Your task to perform on an android device: open app "Mercado Libre" (install if not already installed) Image 0: 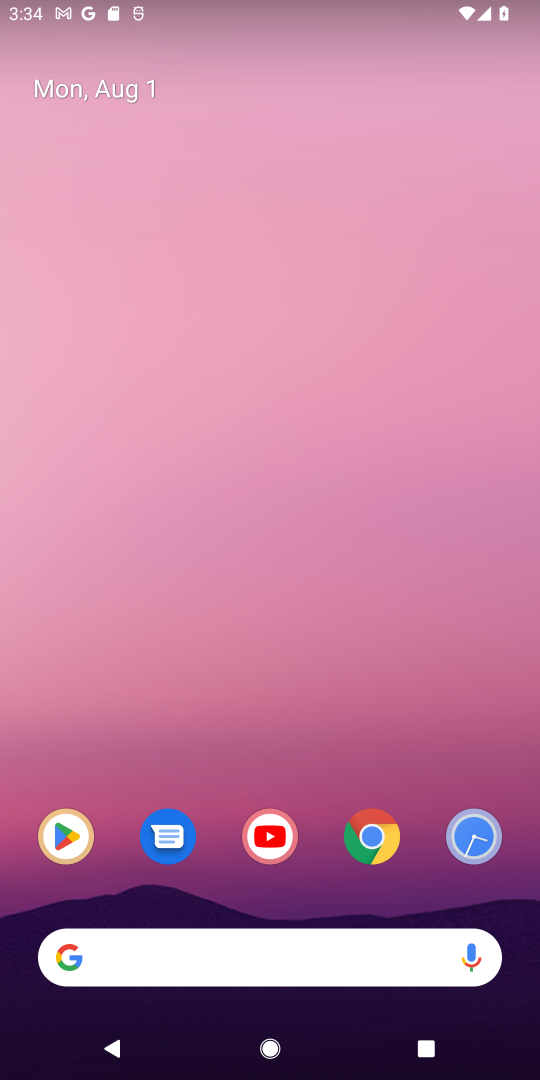
Step 0: drag from (152, 852) to (152, 420)
Your task to perform on an android device: open app "Mercado Libre" (install if not already installed) Image 1: 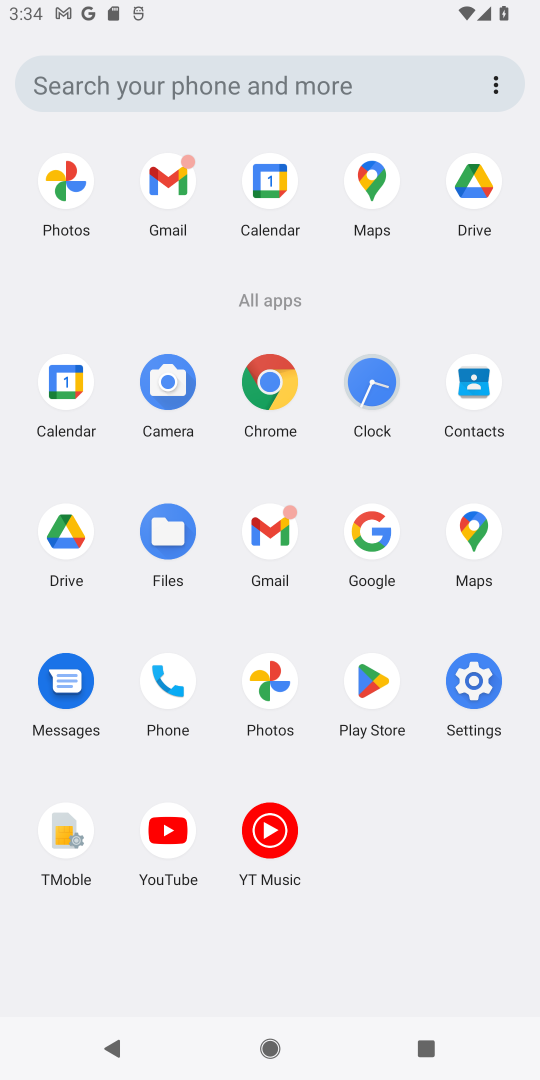
Step 1: click (361, 699)
Your task to perform on an android device: open app "Mercado Libre" (install if not already installed) Image 2: 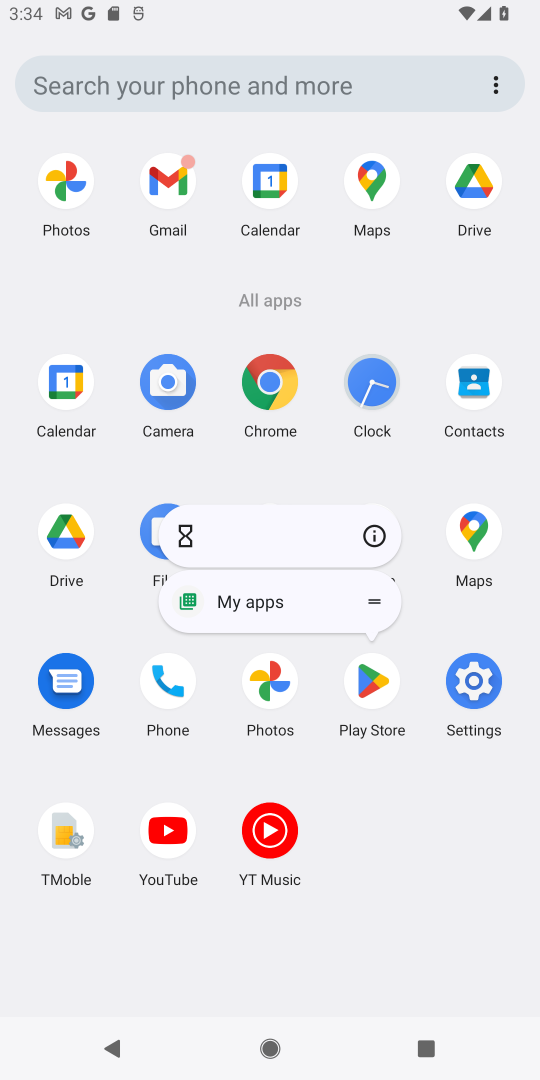
Step 2: click (376, 673)
Your task to perform on an android device: open app "Mercado Libre" (install if not already installed) Image 3: 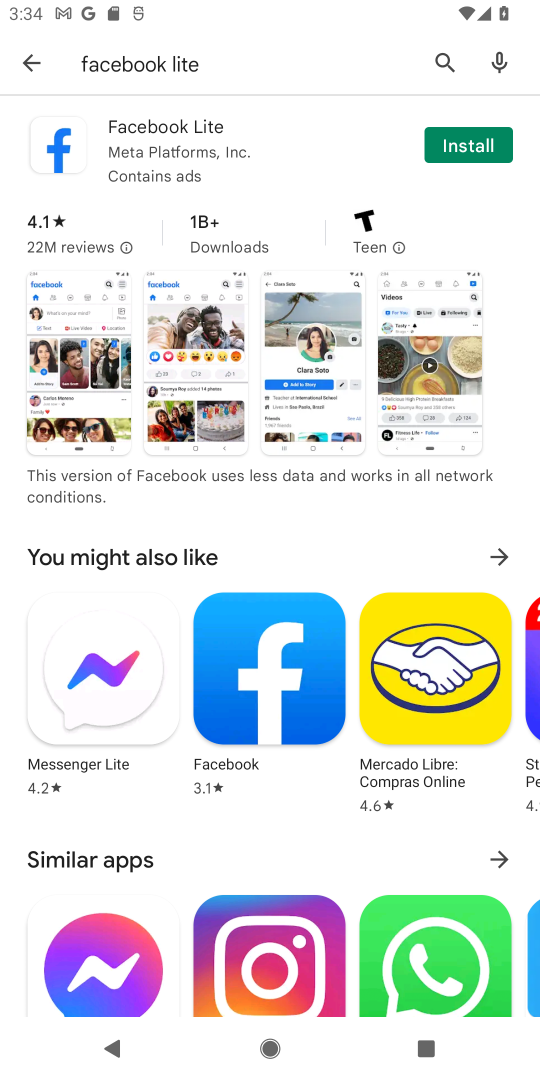
Step 3: click (28, 66)
Your task to perform on an android device: open app "Mercado Libre" (install if not already installed) Image 4: 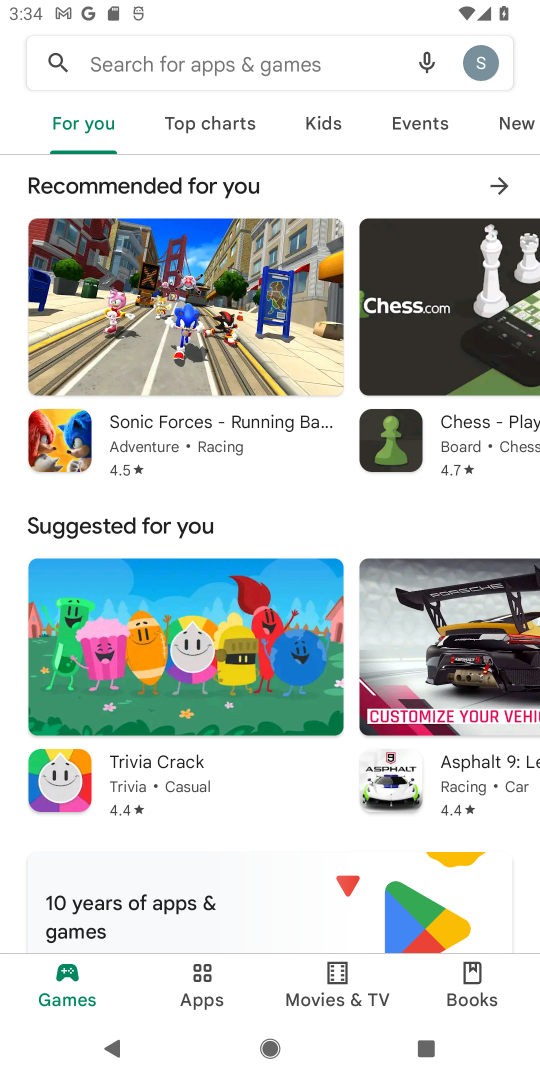
Step 4: click (243, 56)
Your task to perform on an android device: open app "Mercado Libre" (install if not already installed) Image 5: 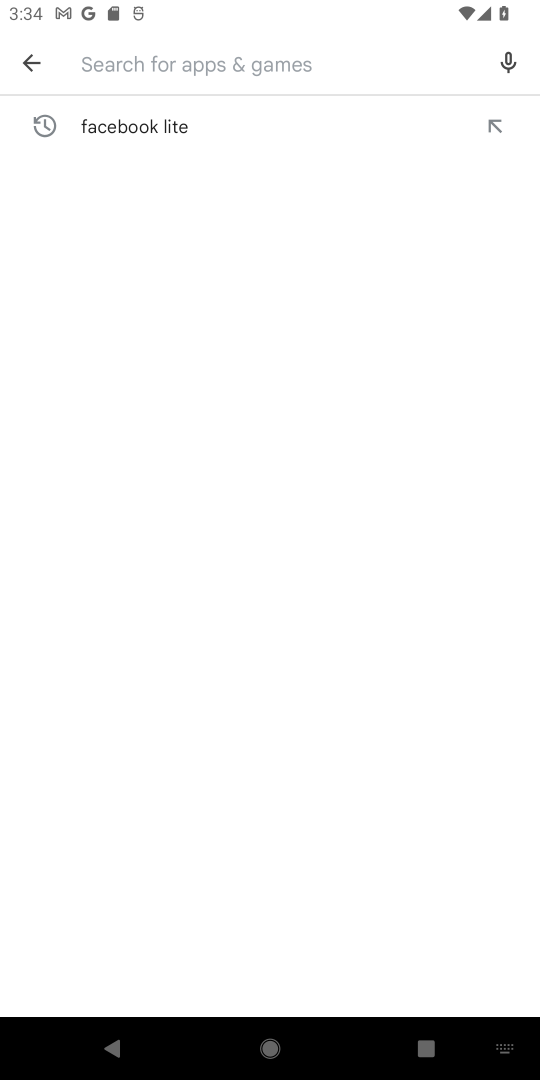
Step 5: type "Mercado Libre"
Your task to perform on an android device: open app "Mercado Libre" (install if not already installed) Image 6: 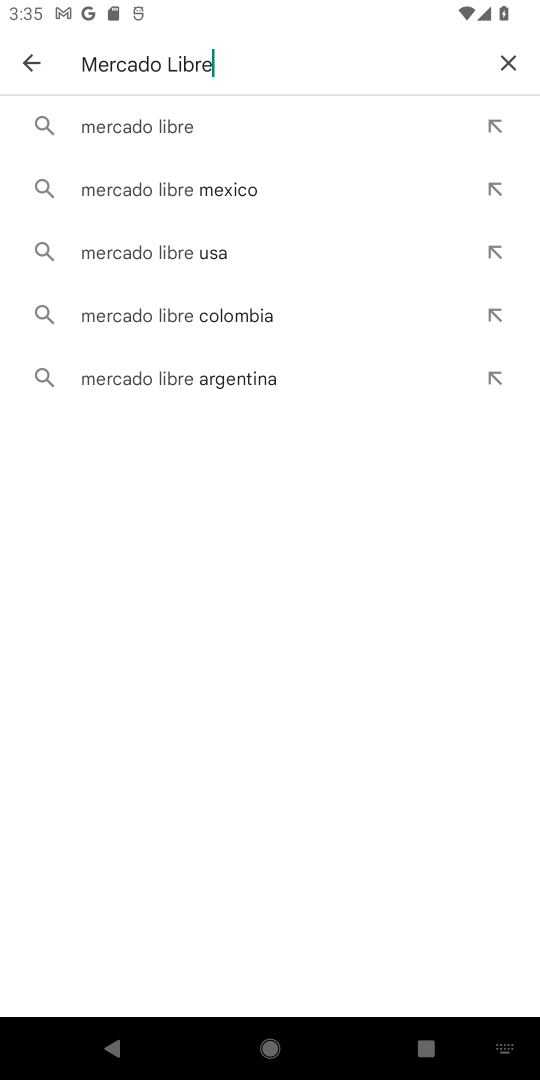
Step 6: click (163, 134)
Your task to perform on an android device: open app "Mercado Libre" (install if not already installed) Image 7: 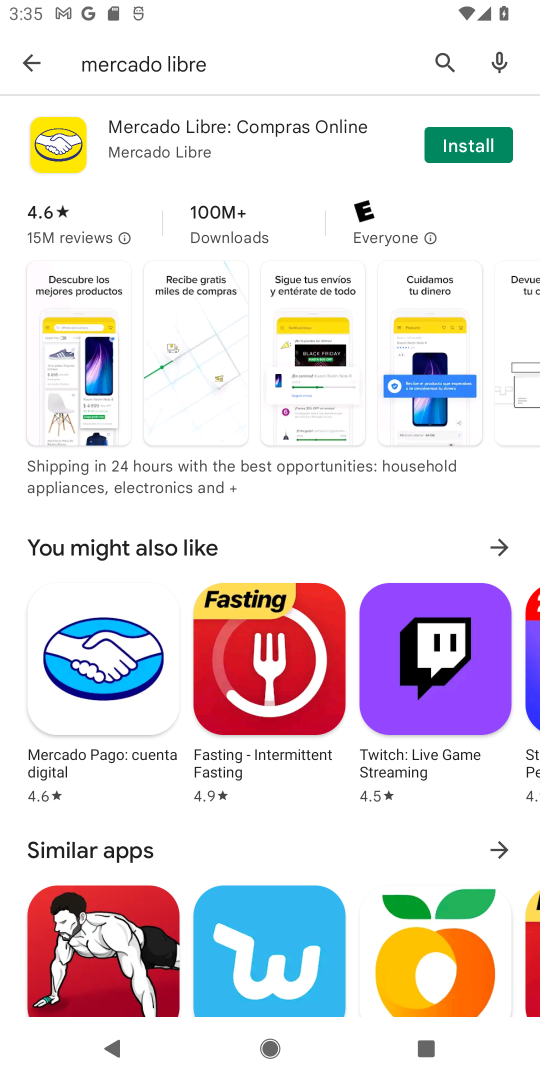
Step 7: click (448, 141)
Your task to perform on an android device: open app "Mercado Libre" (install if not already installed) Image 8: 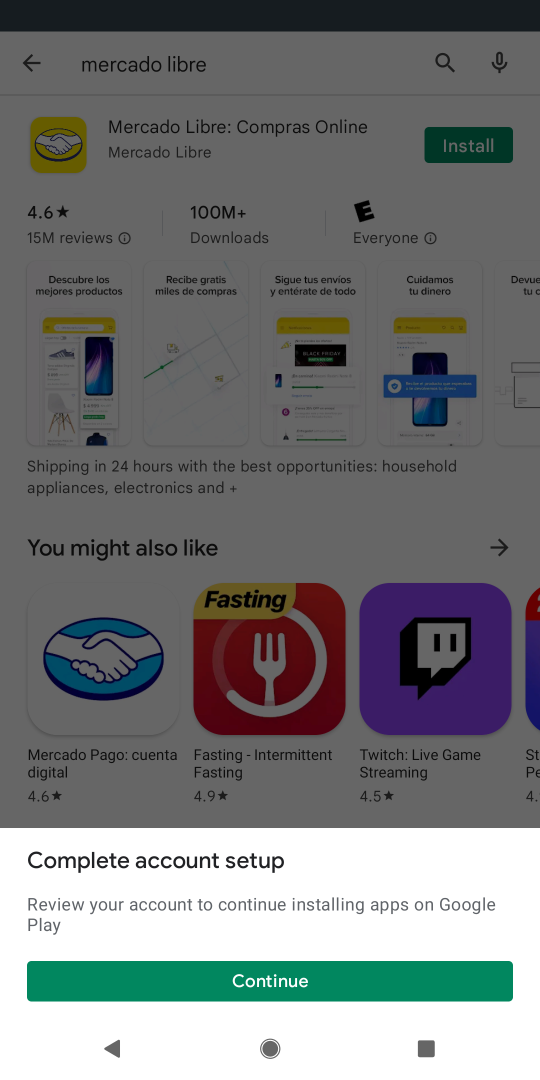
Step 8: click (248, 995)
Your task to perform on an android device: open app "Mercado Libre" (install if not already installed) Image 9: 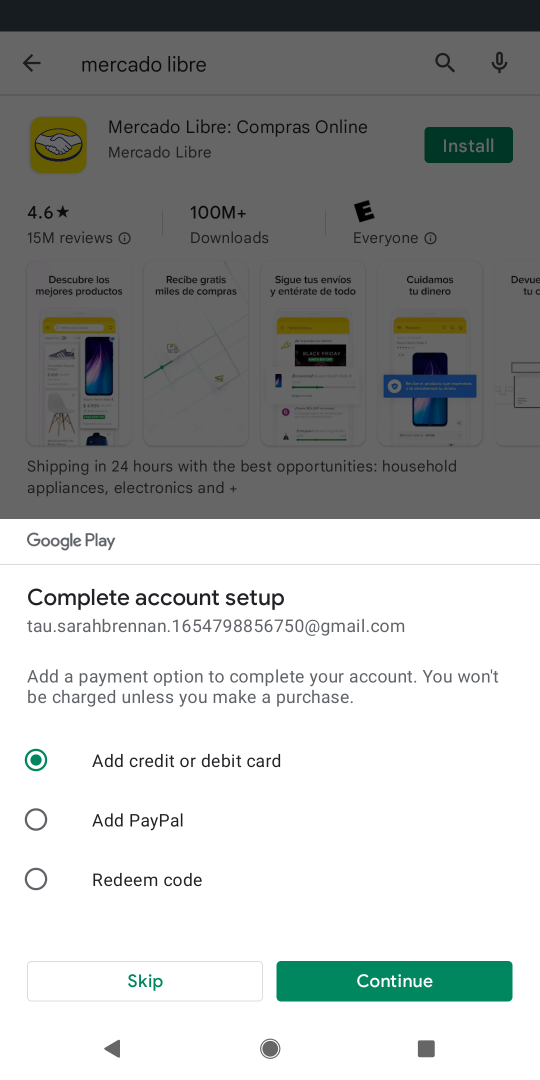
Step 9: click (162, 988)
Your task to perform on an android device: open app "Mercado Libre" (install if not already installed) Image 10: 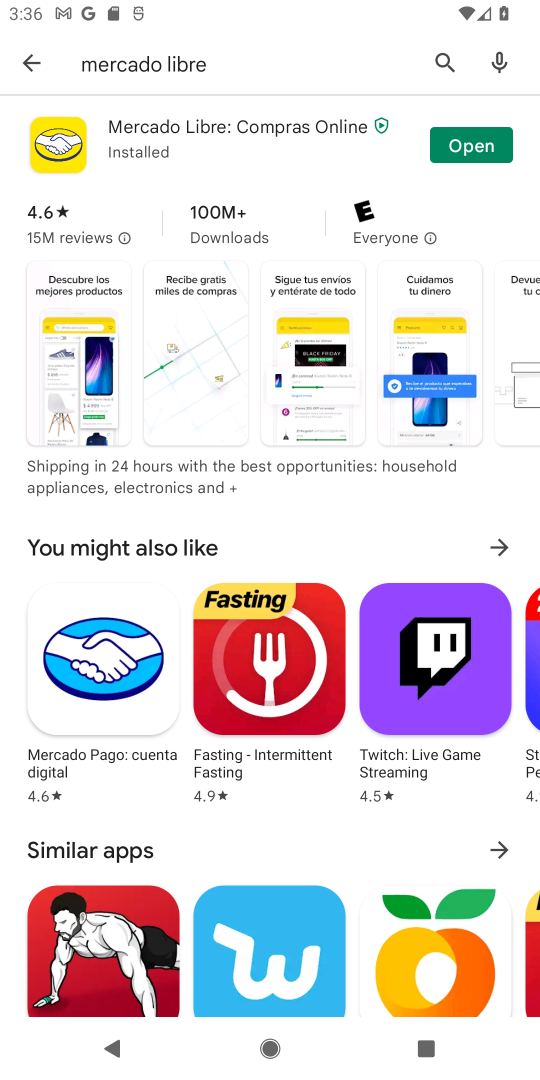
Step 10: click (454, 147)
Your task to perform on an android device: open app "Mercado Libre" (install if not already installed) Image 11: 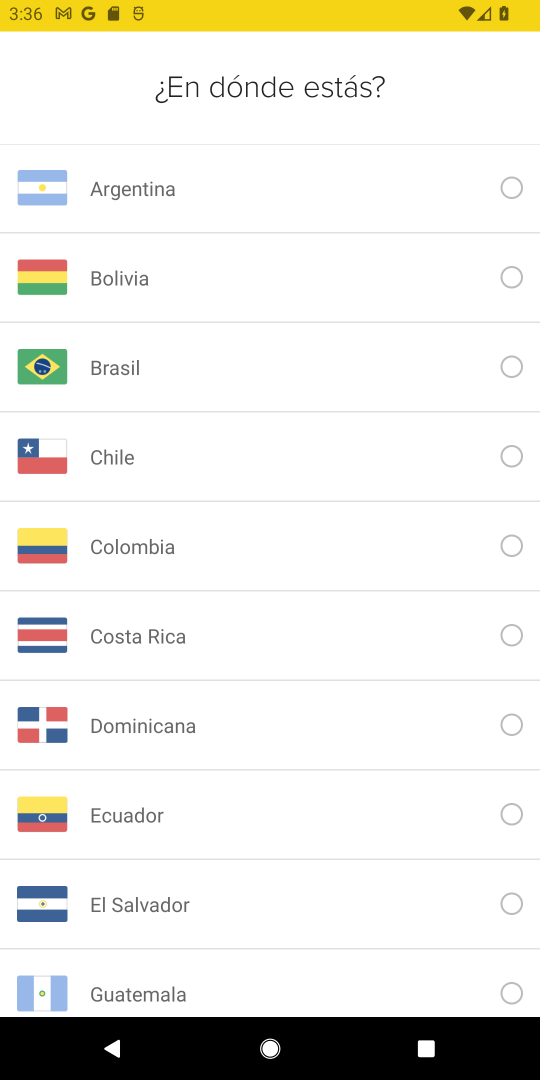
Step 11: task complete